Your task to perform on an android device: Open Google Chrome and click the shortcut for Amazon.com Image 0: 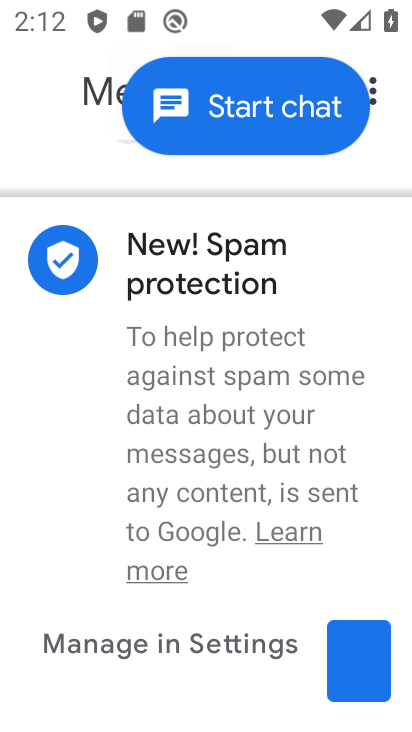
Step 0: press home button
Your task to perform on an android device: Open Google Chrome and click the shortcut for Amazon.com Image 1: 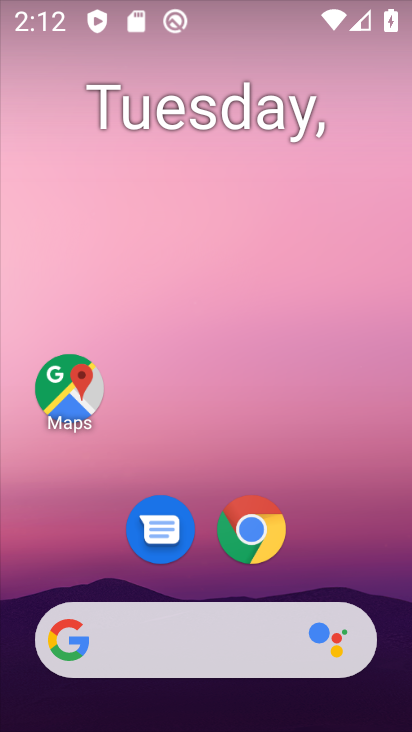
Step 1: click (255, 526)
Your task to perform on an android device: Open Google Chrome and click the shortcut for Amazon.com Image 2: 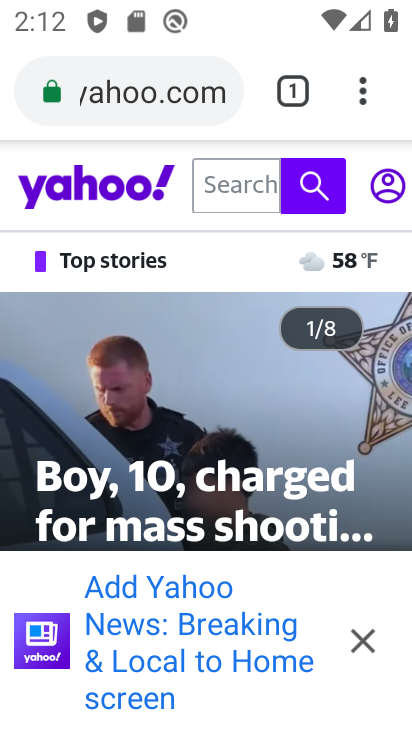
Step 2: click (365, 98)
Your task to perform on an android device: Open Google Chrome and click the shortcut for Amazon.com Image 3: 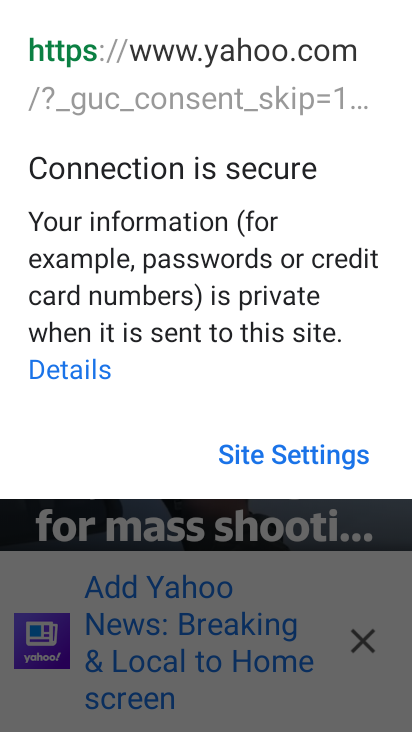
Step 3: click (176, 584)
Your task to perform on an android device: Open Google Chrome and click the shortcut for Amazon.com Image 4: 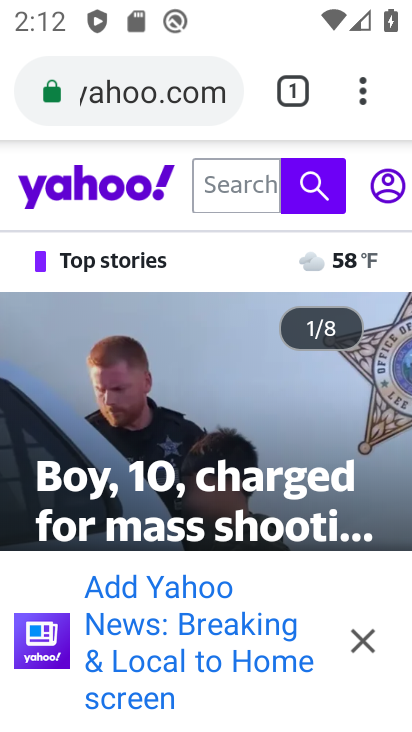
Step 4: click (390, 69)
Your task to perform on an android device: Open Google Chrome and click the shortcut for Amazon.com Image 5: 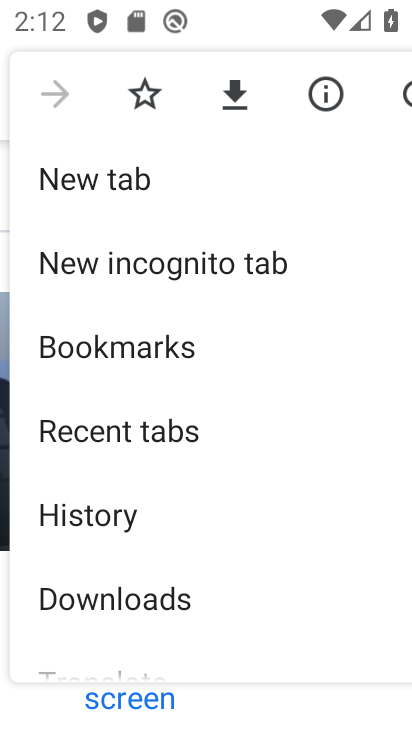
Step 5: click (63, 193)
Your task to perform on an android device: Open Google Chrome and click the shortcut for Amazon.com Image 6: 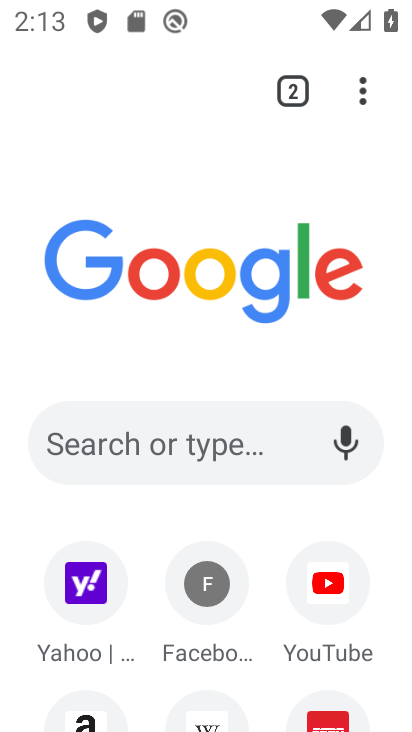
Step 6: drag from (269, 531) to (268, 156)
Your task to perform on an android device: Open Google Chrome and click the shortcut for Amazon.com Image 7: 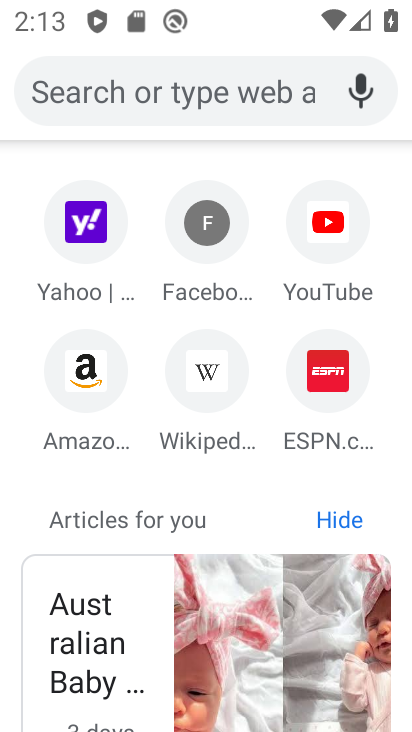
Step 7: click (88, 379)
Your task to perform on an android device: Open Google Chrome and click the shortcut for Amazon.com Image 8: 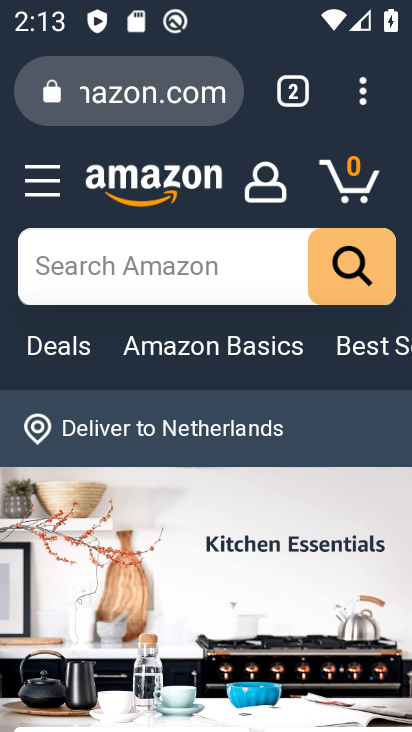
Step 8: task complete